Your task to perform on an android device: Open the map Image 0: 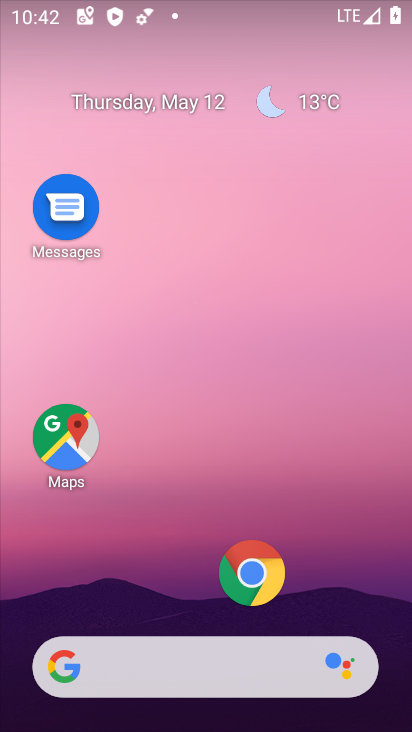
Step 0: click (65, 439)
Your task to perform on an android device: Open the map Image 1: 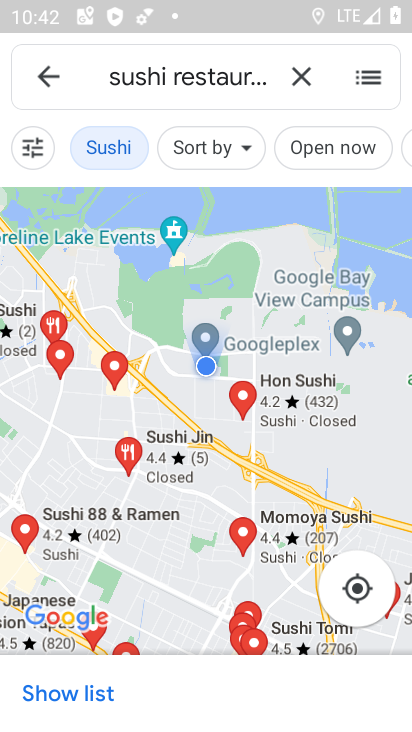
Step 1: task complete